Your task to perform on an android device: Go to Reddit.com Image 0: 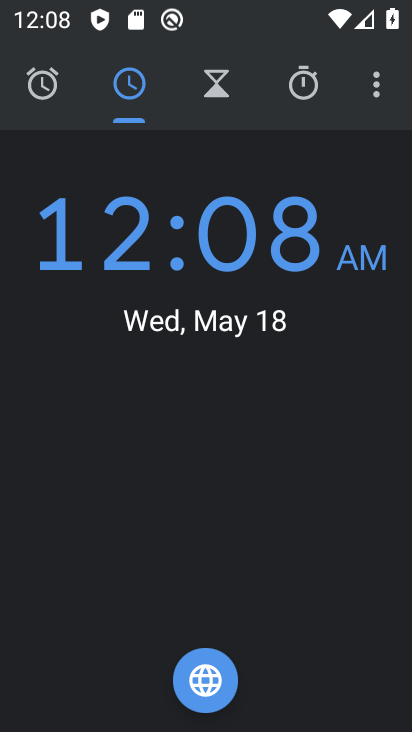
Step 0: press home button
Your task to perform on an android device: Go to Reddit.com Image 1: 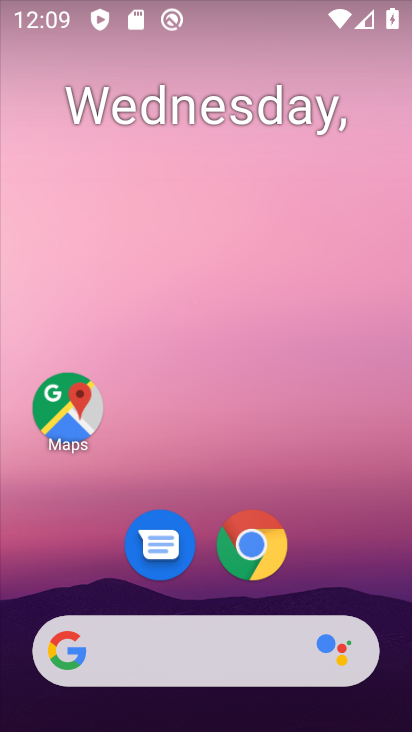
Step 1: click (257, 559)
Your task to perform on an android device: Go to Reddit.com Image 2: 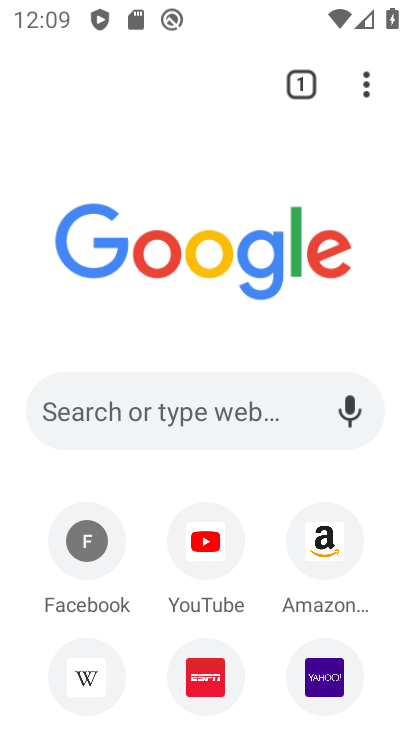
Step 2: click (156, 432)
Your task to perform on an android device: Go to Reddit.com Image 3: 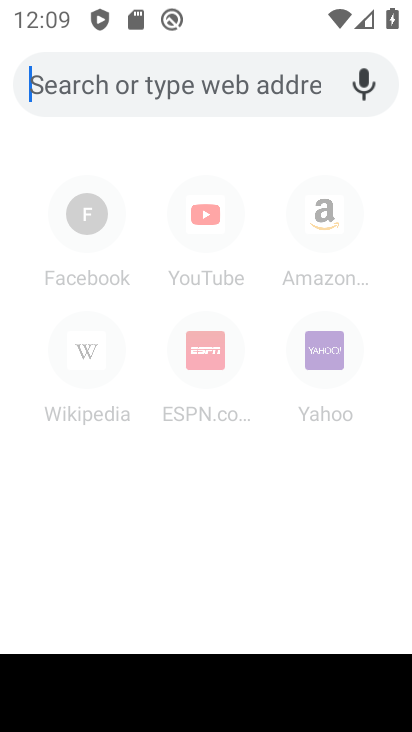
Step 3: type "reddit.com"
Your task to perform on an android device: Go to Reddit.com Image 4: 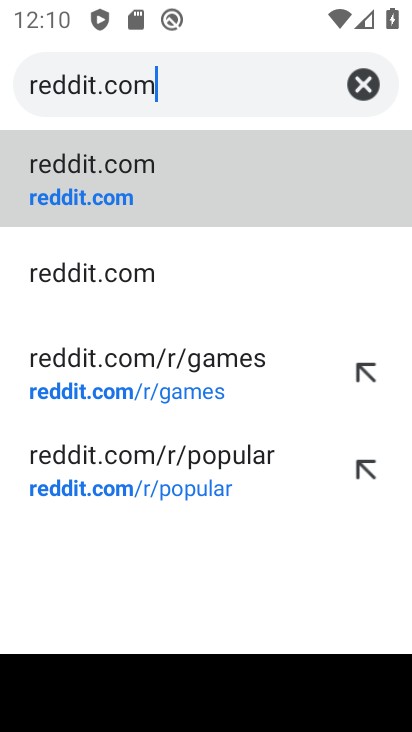
Step 4: click (177, 369)
Your task to perform on an android device: Go to Reddit.com Image 5: 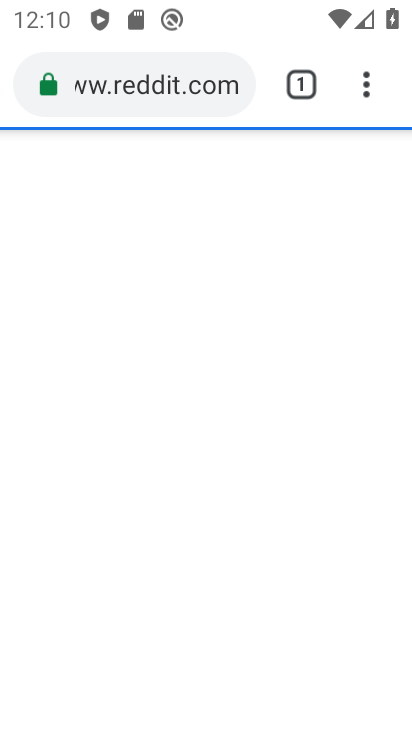
Step 5: task complete